Your task to perform on an android device: set the stopwatch Image 0: 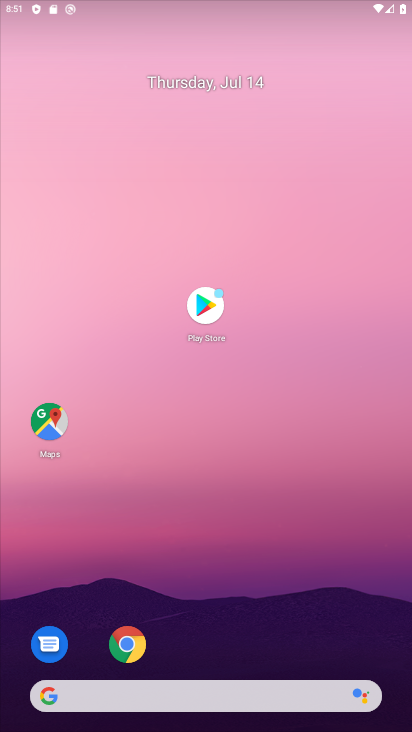
Step 0: click (289, 311)
Your task to perform on an android device: set the stopwatch Image 1: 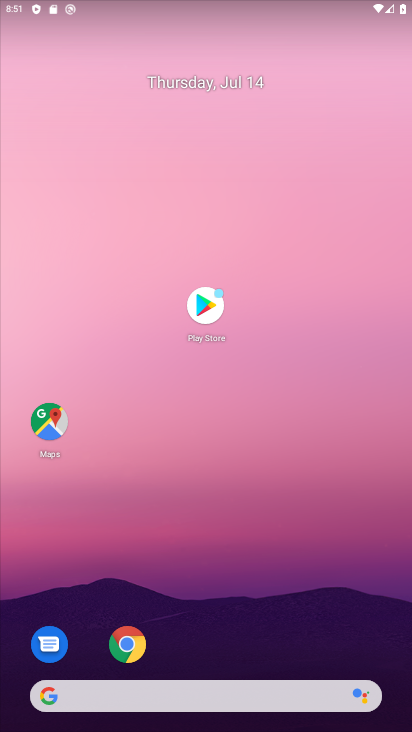
Step 1: drag from (172, 650) to (212, 208)
Your task to perform on an android device: set the stopwatch Image 2: 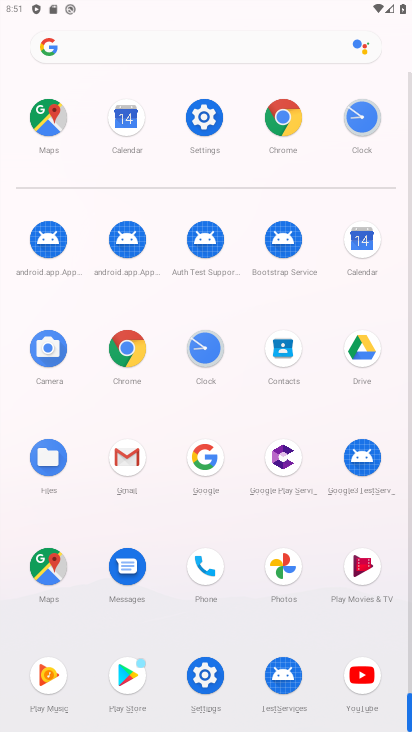
Step 2: click (205, 349)
Your task to perform on an android device: set the stopwatch Image 3: 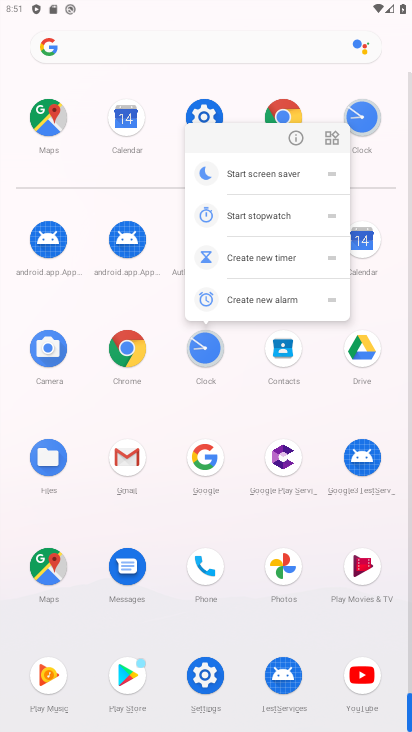
Step 3: click (294, 134)
Your task to perform on an android device: set the stopwatch Image 4: 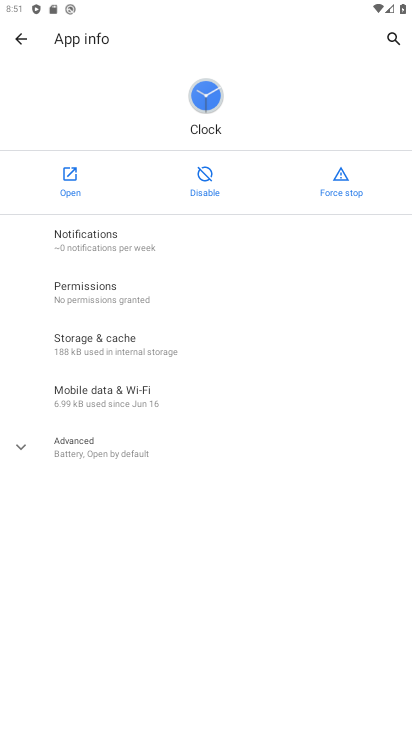
Step 4: click (78, 179)
Your task to perform on an android device: set the stopwatch Image 5: 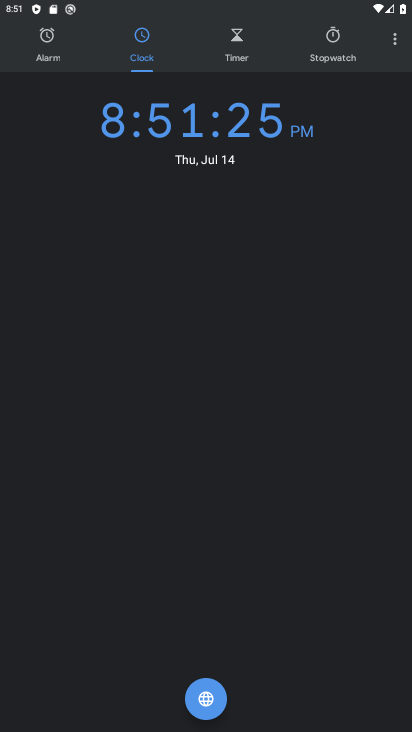
Step 5: drag from (185, 517) to (230, 235)
Your task to perform on an android device: set the stopwatch Image 6: 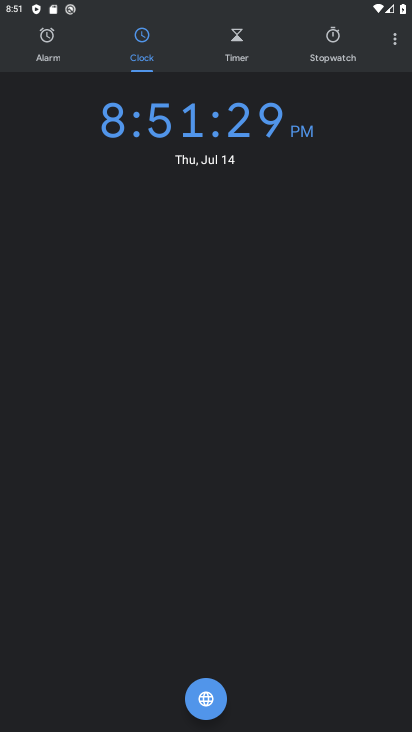
Step 6: click (331, 56)
Your task to perform on an android device: set the stopwatch Image 7: 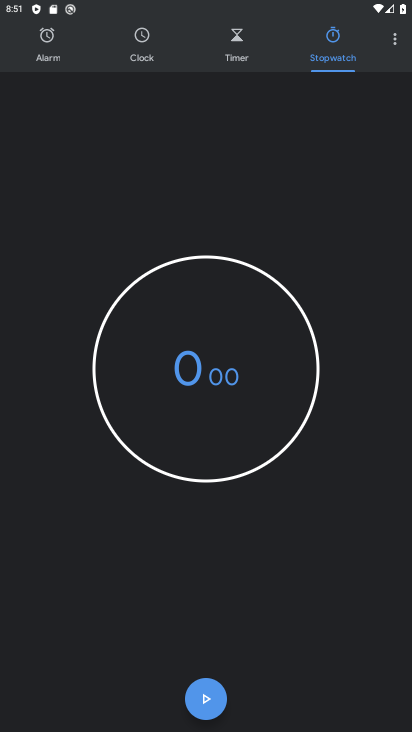
Step 7: click (206, 706)
Your task to perform on an android device: set the stopwatch Image 8: 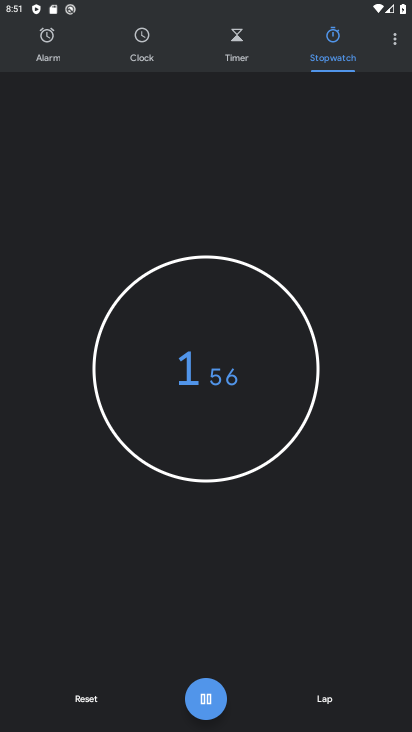
Step 8: task complete